Your task to perform on an android device: Search for vegetarian restaurants on Maps Image 0: 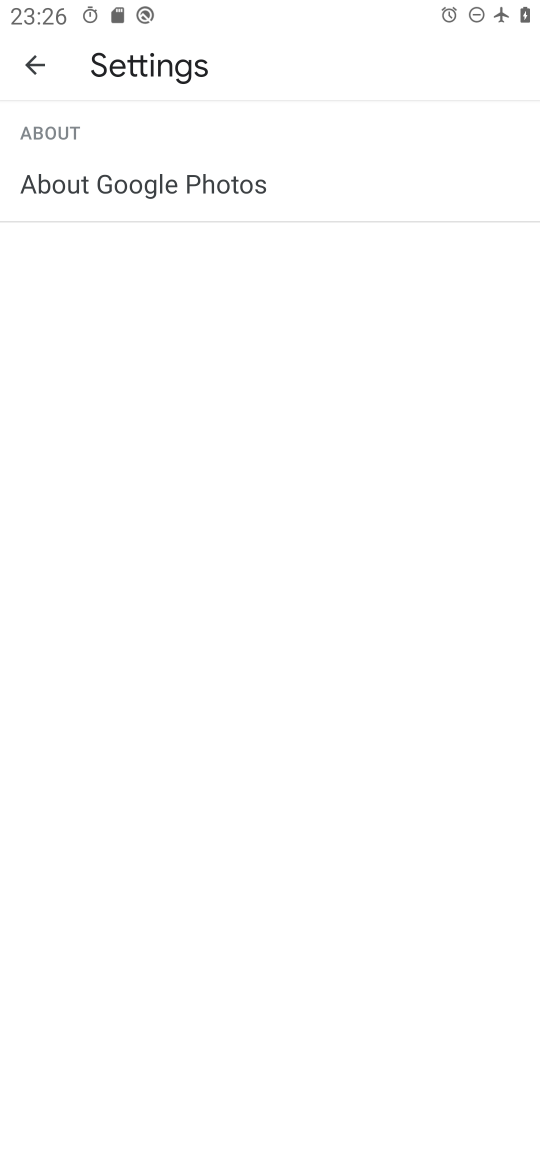
Step 0: press home button
Your task to perform on an android device: Search for vegetarian restaurants on Maps Image 1: 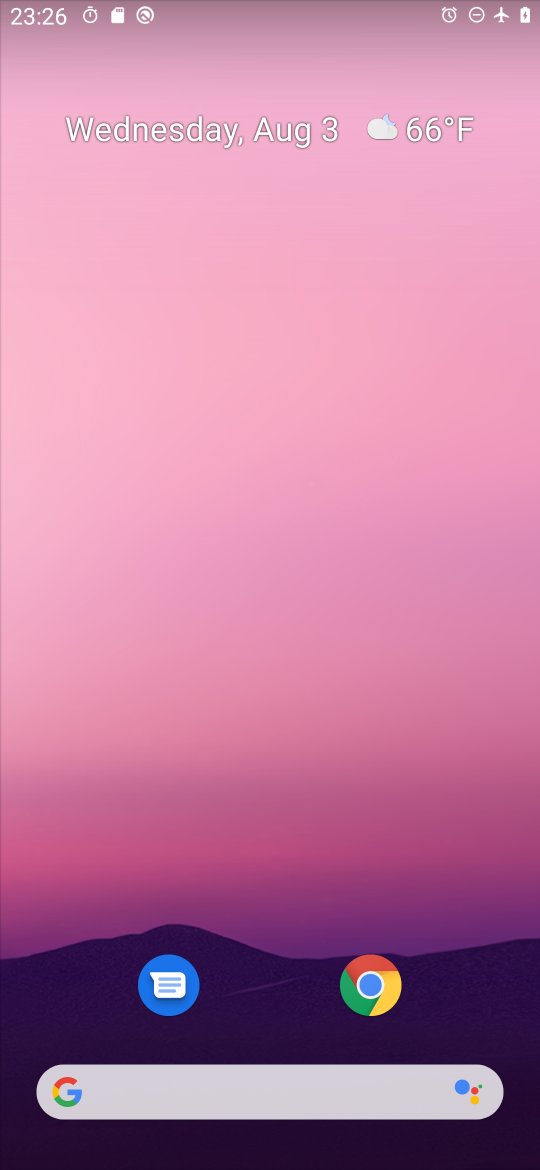
Step 1: drag from (273, 772) to (319, 329)
Your task to perform on an android device: Search for vegetarian restaurants on Maps Image 2: 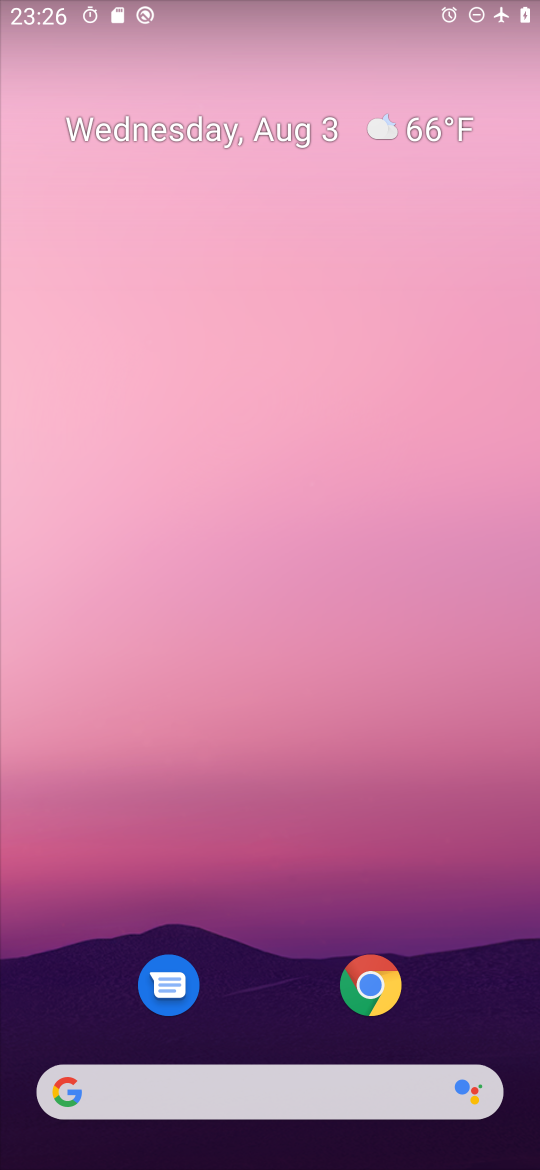
Step 2: drag from (262, 906) to (248, 313)
Your task to perform on an android device: Search for vegetarian restaurants on Maps Image 3: 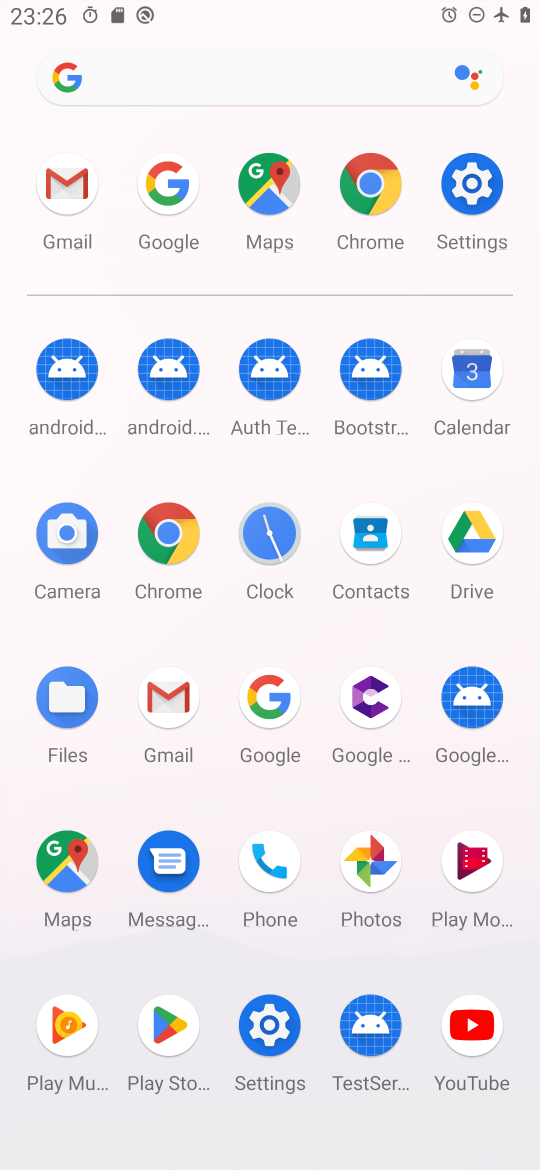
Step 3: click (260, 204)
Your task to perform on an android device: Search for vegetarian restaurants on Maps Image 4: 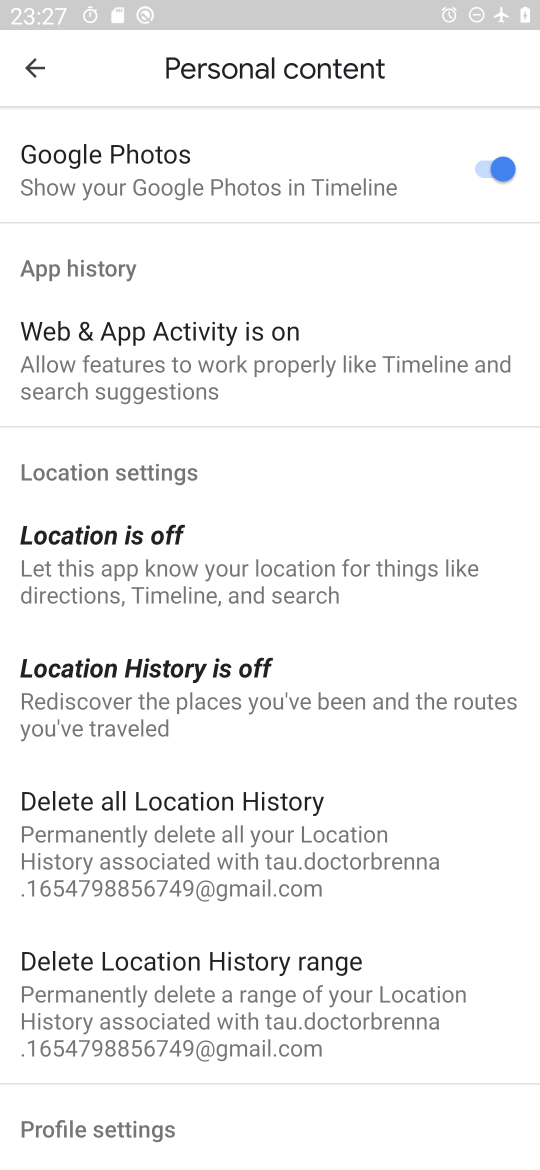
Step 4: click (28, 64)
Your task to perform on an android device: Search for vegetarian restaurants on Maps Image 5: 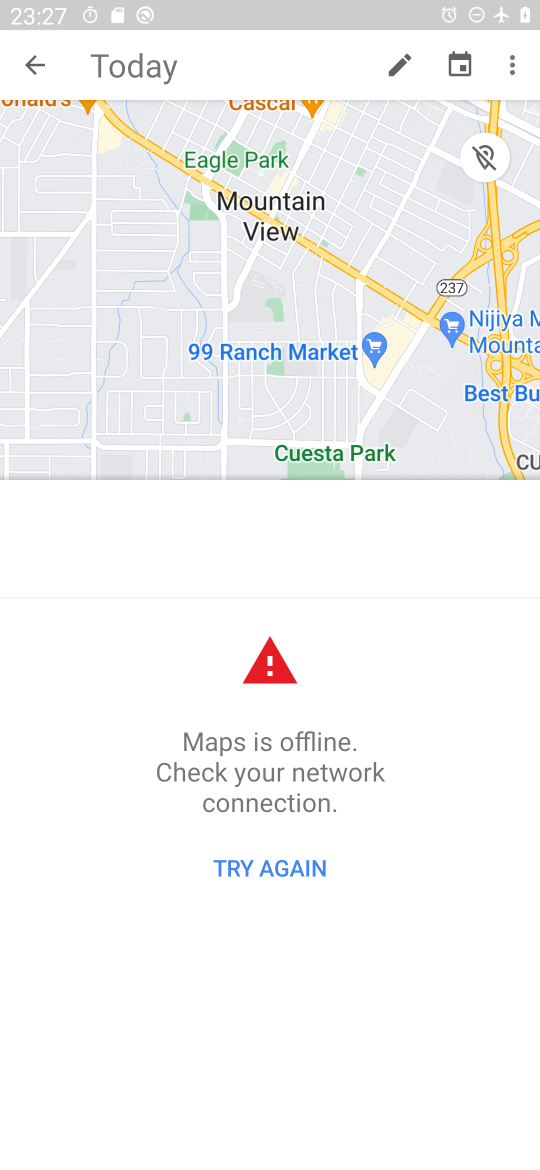
Step 5: click (37, 74)
Your task to perform on an android device: Search for vegetarian restaurants on Maps Image 6: 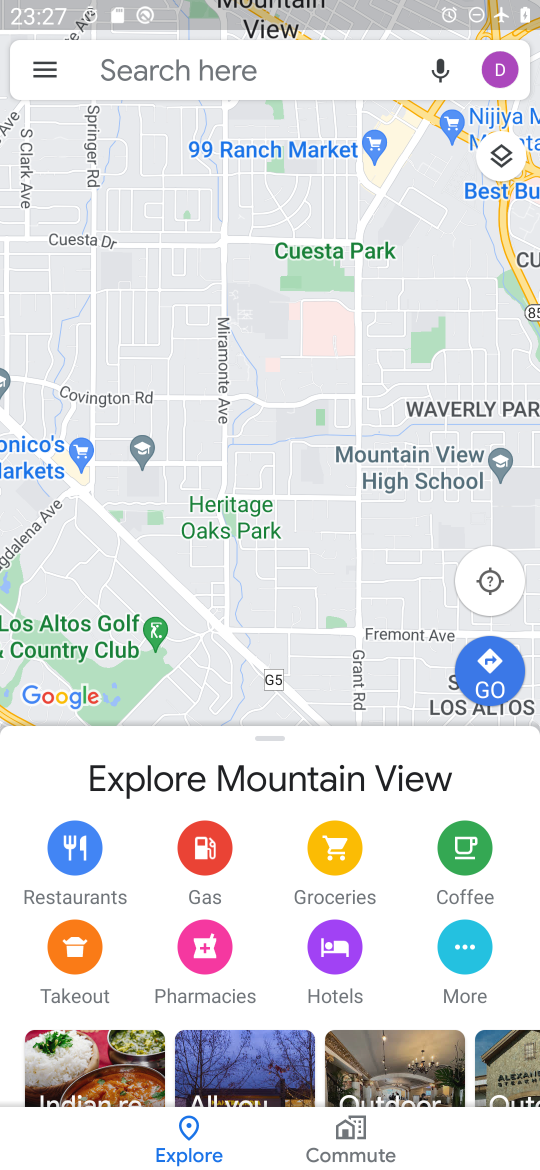
Step 6: click (140, 82)
Your task to perform on an android device: Search for vegetarian restaurants on Maps Image 7: 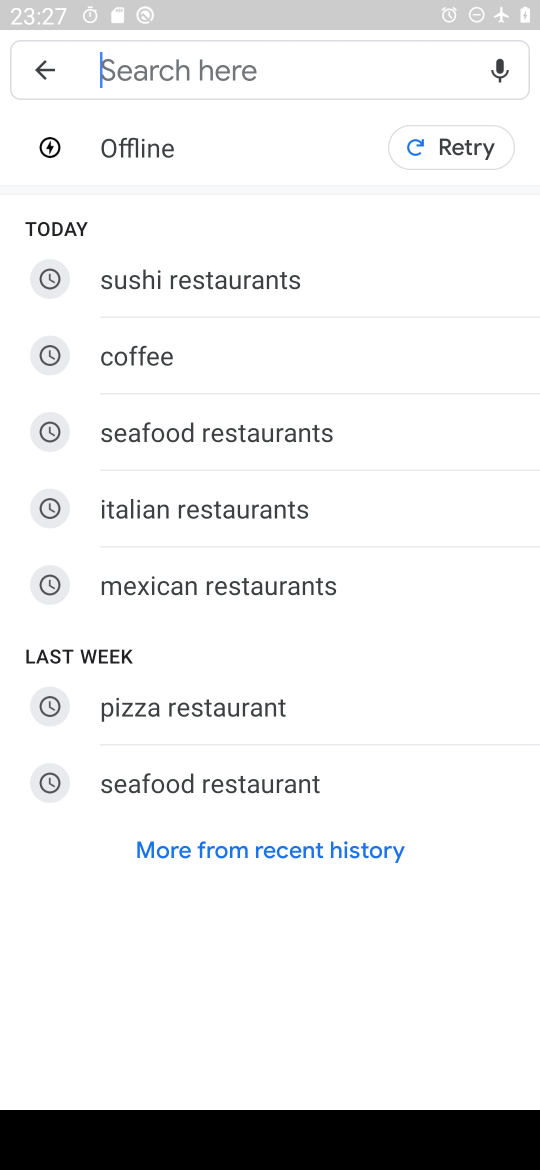
Step 7: type "vegetarian restaurants"
Your task to perform on an android device: Search for vegetarian restaurants on Maps Image 8: 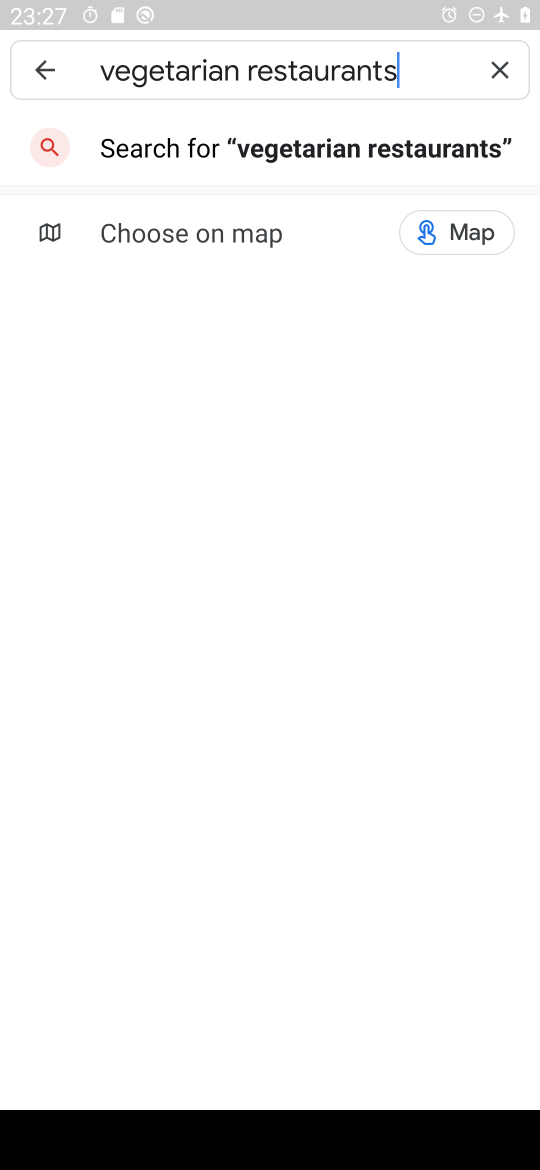
Step 8: type ""
Your task to perform on an android device: Search for vegetarian restaurants on Maps Image 9: 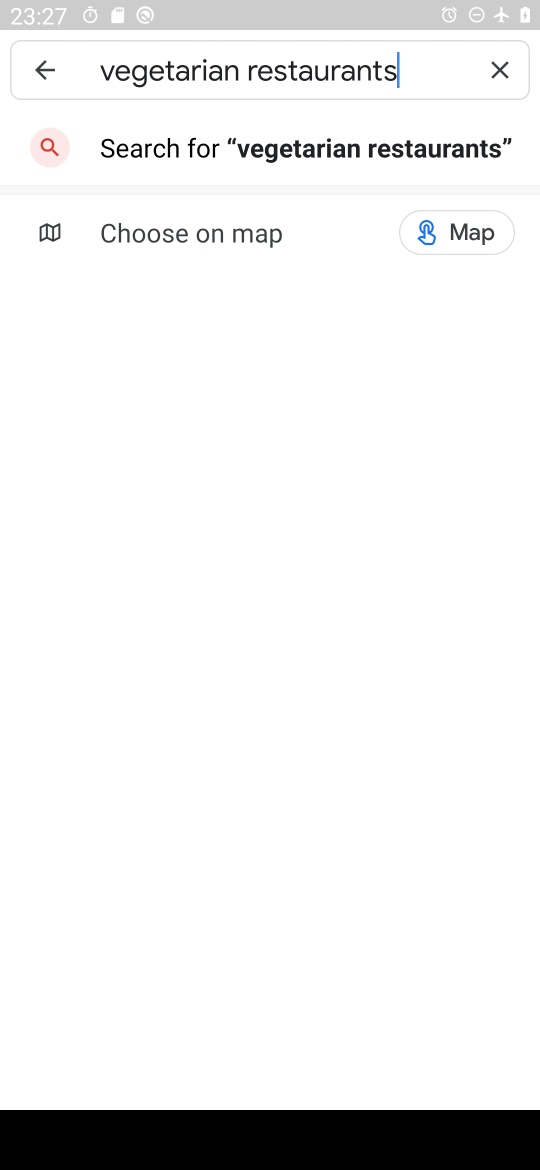
Step 9: click (309, 164)
Your task to perform on an android device: Search for vegetarian restaurants on Maps Image 10: 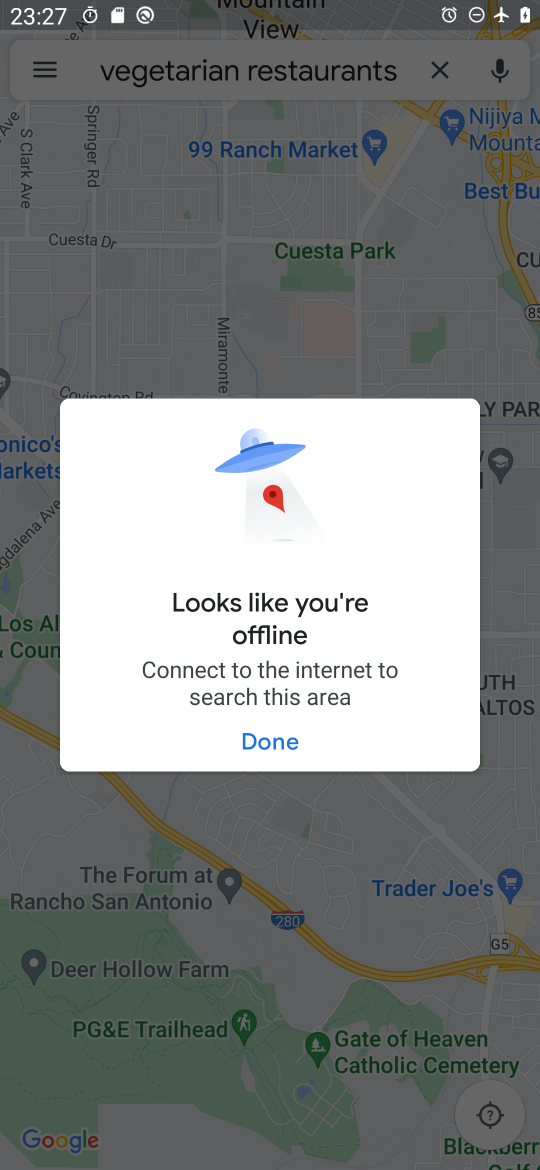
Step 10: task complete